Your task to perform on an android device: Open Android settings Image 0: 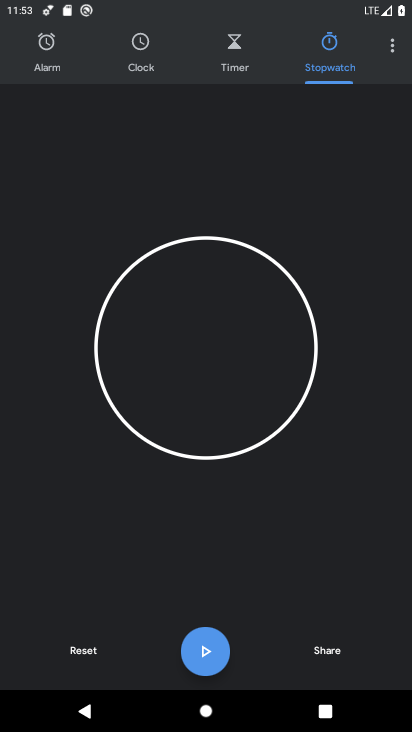
Step 0: press home button
Your task to perform on an android device: Open Android settings Image 1: 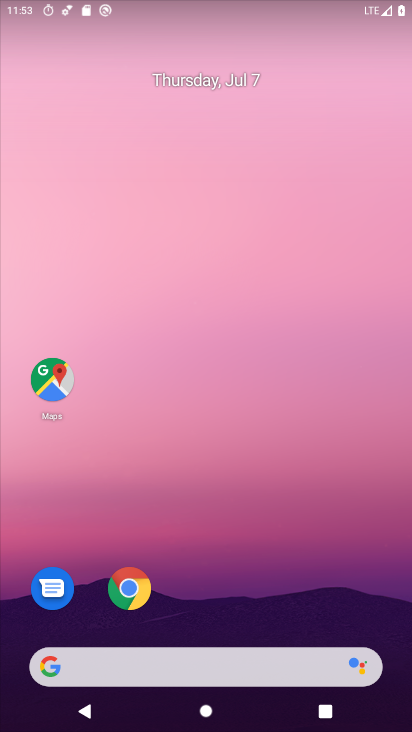
Step 1: drag from (155, 666) to (197, 147)
Your task to perform on an android device: Open Android settings Image 2: 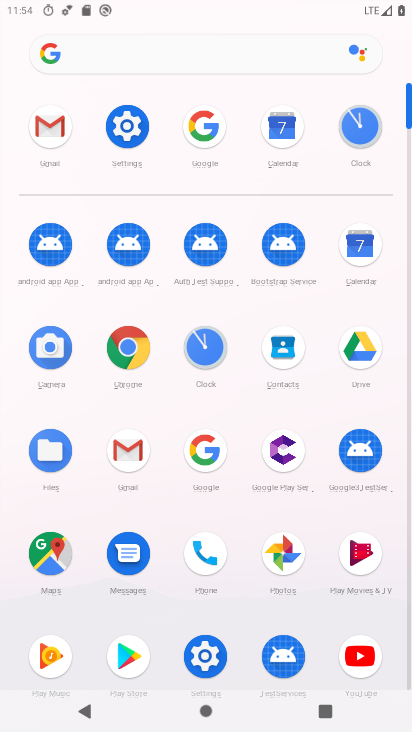
Step 2: click (130, 126)
Your task to perform on an android device: Open Android settings Image 3: 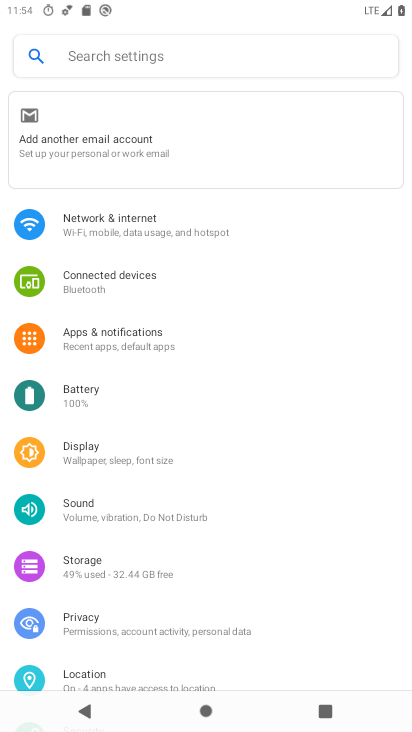
Step 3: task complete